Your task to perform on an android device: Open the web browser Image 0: 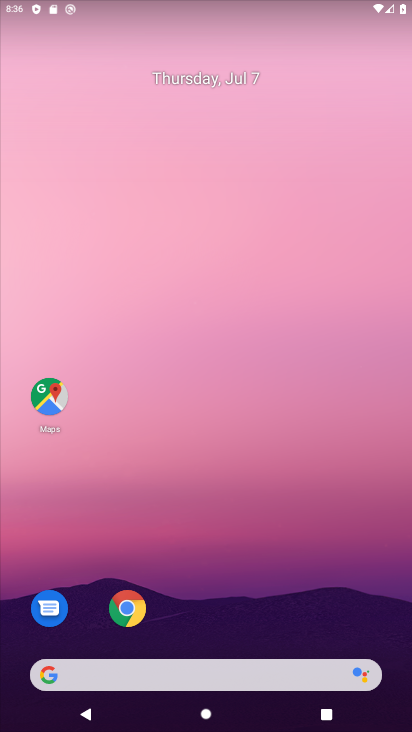
Step 0: click (127, 593)
Your task to perform on an android device: Open the web browser Image 1: 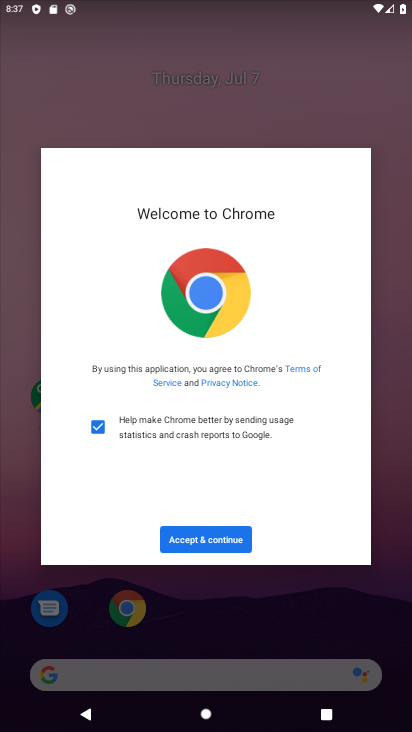
Step 1: click (202, 537)
Your task to perform on an android device: Open the web browser Image 2: 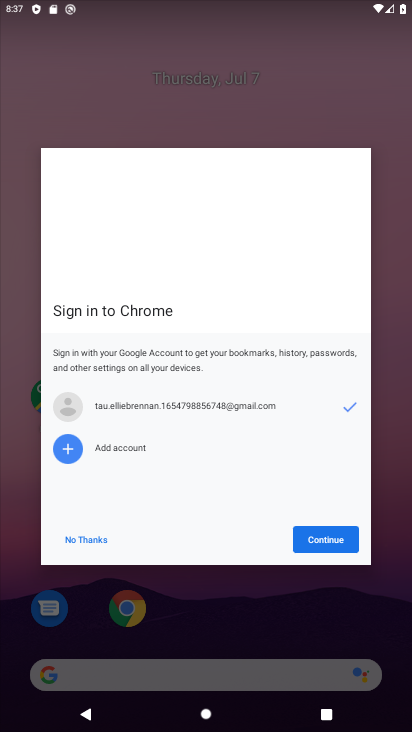
Step 2: click (342, 531)
Your task to perform on an android device: Open the web browser Image 3: 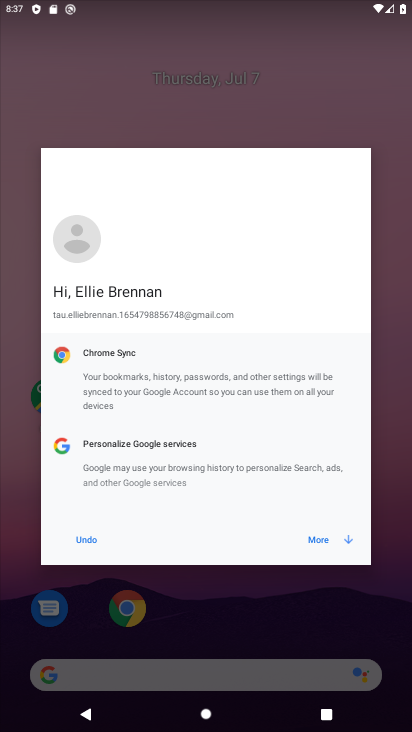
Step 3: click (342, 531)
Your task to perform on an android device: Open the web browser Image 4: 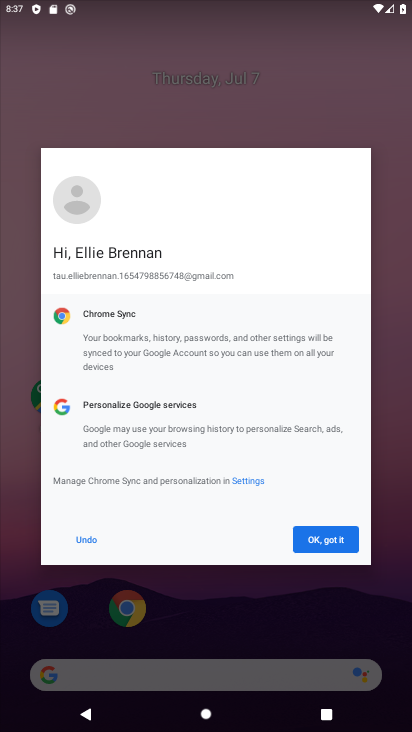
Step 4: click (342, 531)
Your task to perform on an android device: Open the web browser Image 5: 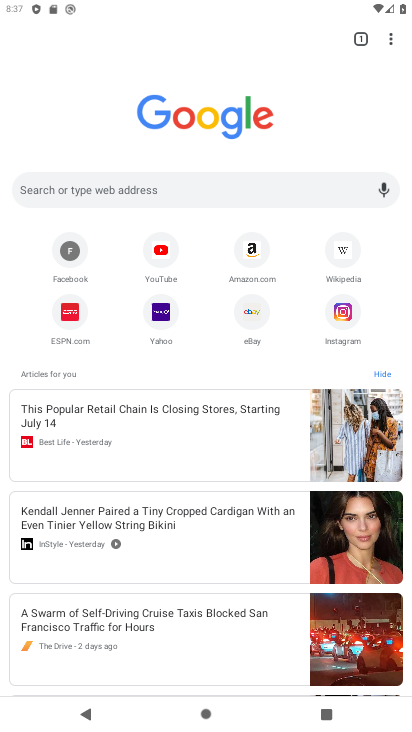
Step 5: task complete